Your task to perform on an android device: Go to wifi settings Image 0: 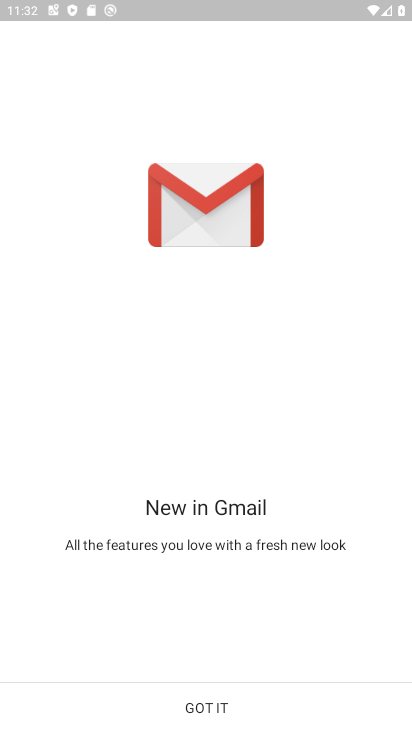
Step 0: press home button
Your task to perform on an android device: Go to wifi settings Image 1: 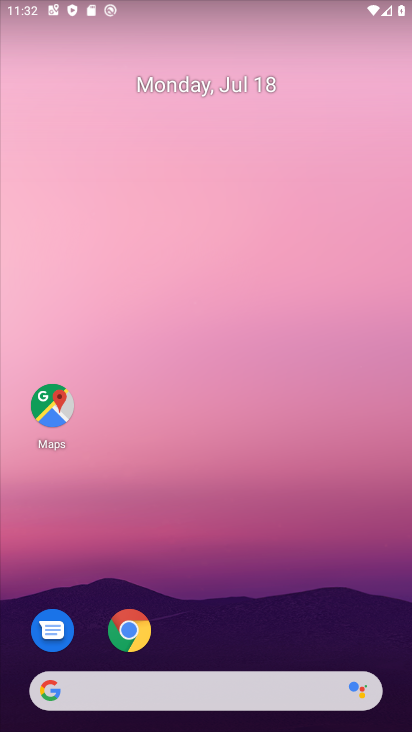
Step 1: drag from (257, 643) to (234, 118)
Your task to perform on an android device: Go to wifi settings Image 2: 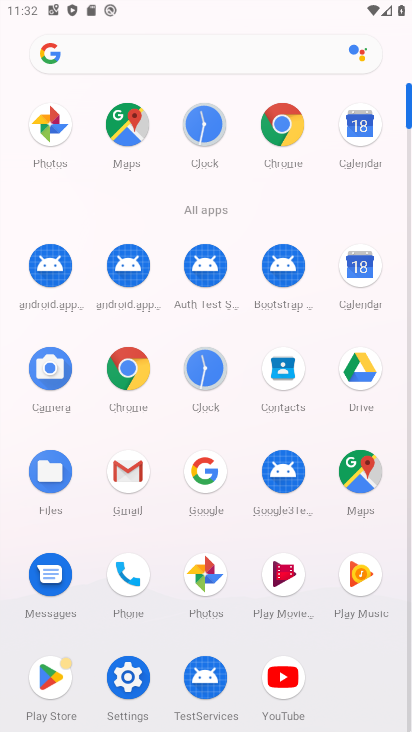
Step 2: click (129, 679)
Your task to perform on an android device: Go to wifi settings Image 3: 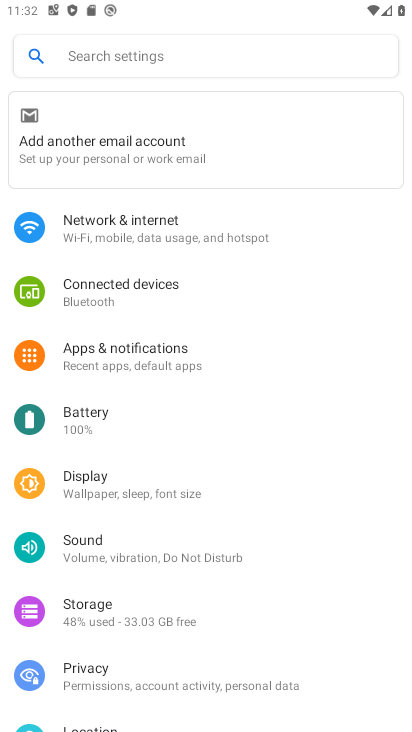
Step 3: click (256, 237)
Your task to perform on an android device: Go to wifi settings Image 4: 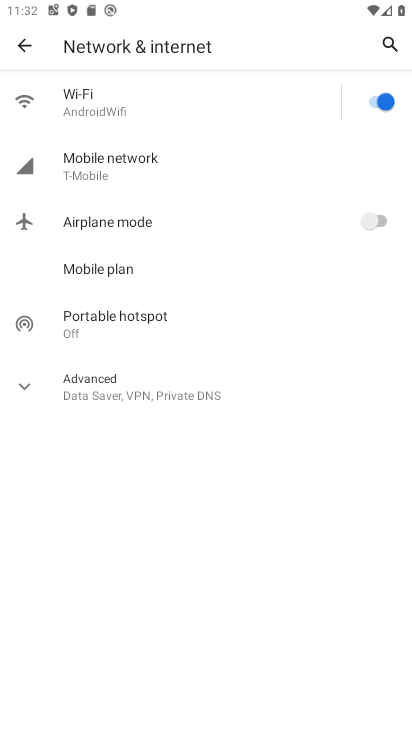
Step 4: click (173, 100)
Your task to perform on an android device: Go to wifi settings Image 5: 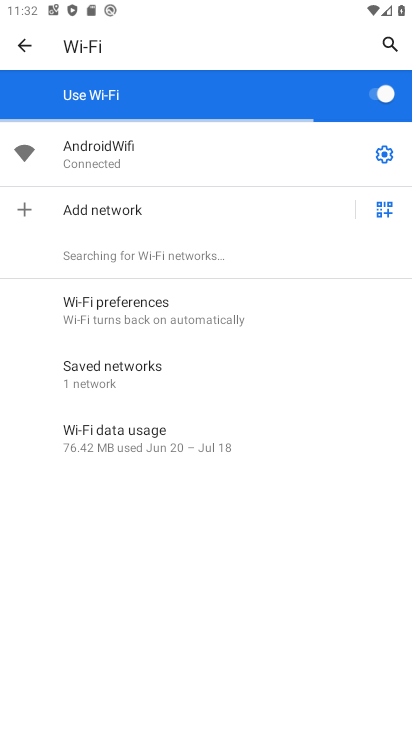
Step 5: task complete